Your task to perform on an android device: turn notification dots off Image 0: 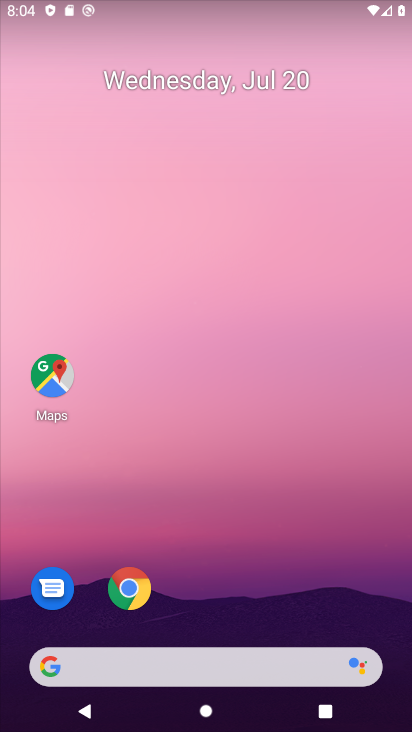
Step 0: drag from (28, 690) to (169, 114)
Your task to perform on an android device: turn notification dots off Image 1: 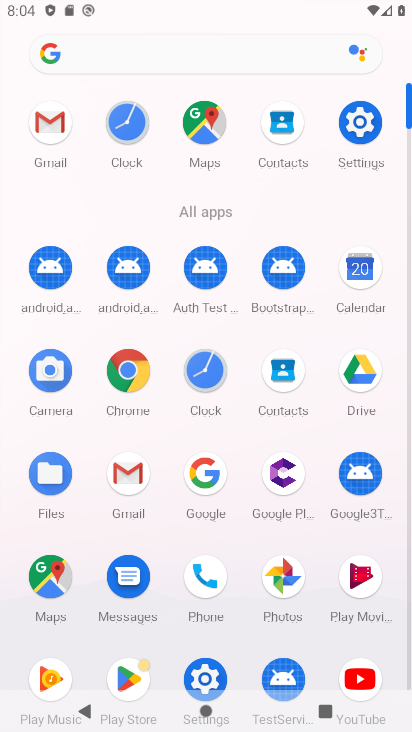
Step 1: click (206, 676)
Your task to perform on an android device: turn notification dots off Image 2: 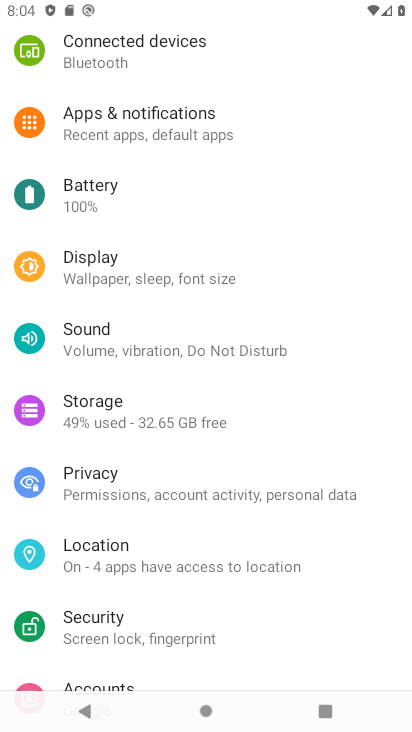
Step 2: click (160, 132)
Your task to perform on an android device: turn notification dots off Image 3: 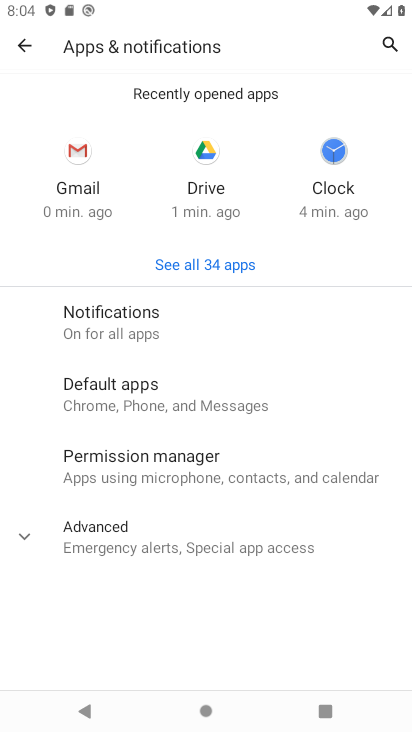
Step 3: click (99, 539)
Your task to perform on an android device: turn notification dots off Image 4: 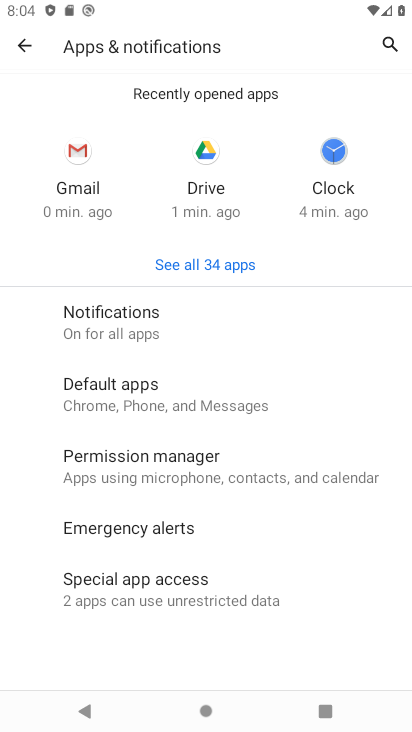
Step 4: click (105, 563)
Your task to perform on an android device: turn notification dots off Image 5: 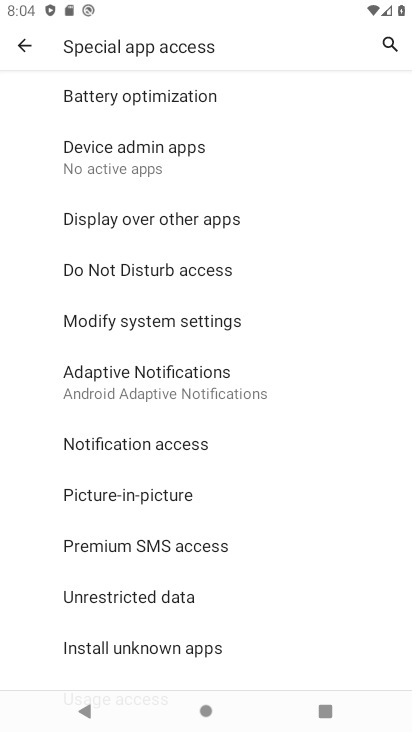
Step 5: click (28, 48)
Your task to perform on an android device: turn notification dots off Image 6: 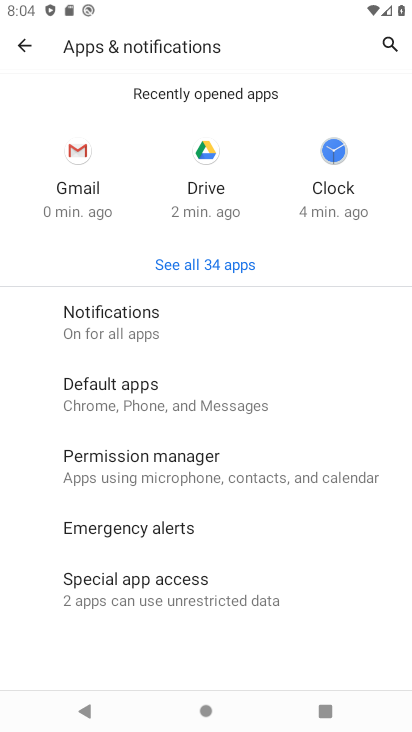
Step 6: click (104, 404)
Your task to perform on an android device: turn notification dots off Image 7: 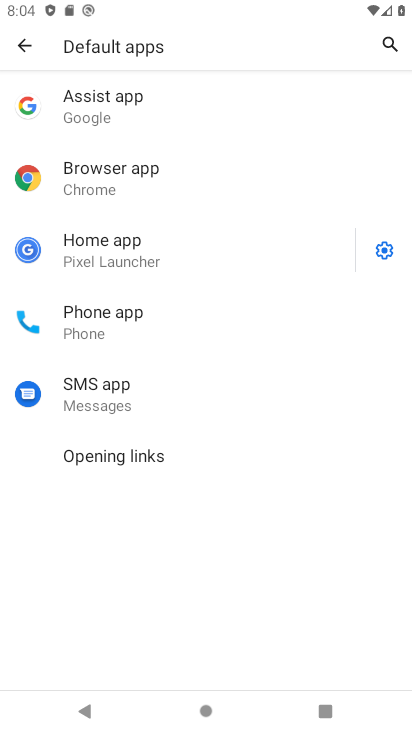
Step 7: task complete